Your task to perform on an android device: Open CNN.com Image 0: 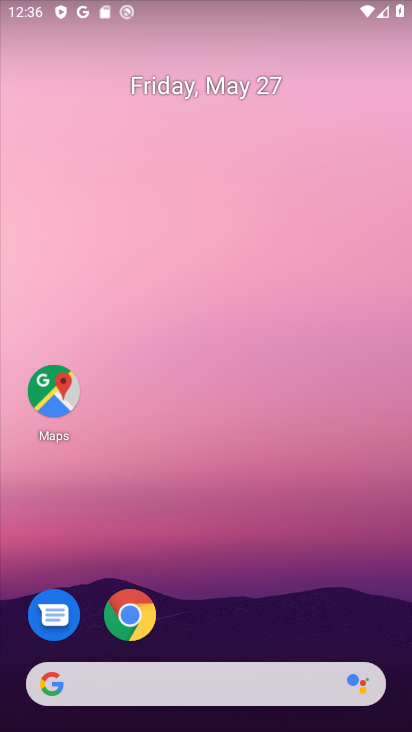
Step 0: click (194, 677)
Your task to perform on an android device: Open CNN.com Image 1: 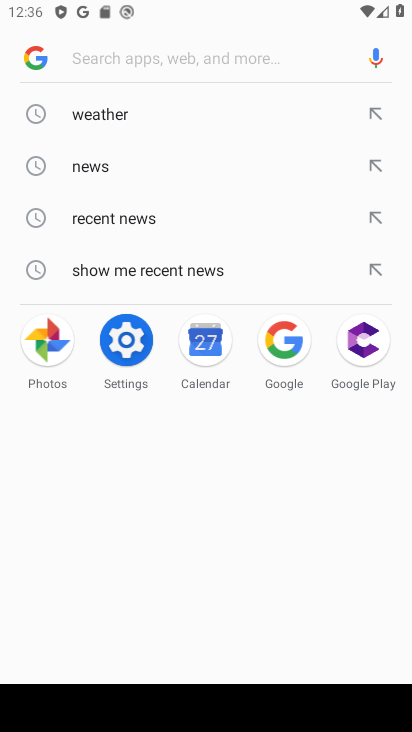
Step 1: type "Cnn.com"
Your task to perform on an android device: Open CNN.com Image 2: 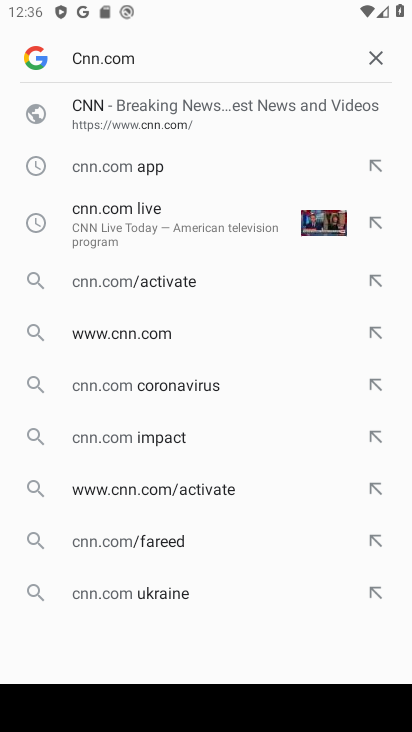
Step 2: click (250, 115)
Your task to perform on an android device: Open CNN.com Image 3: 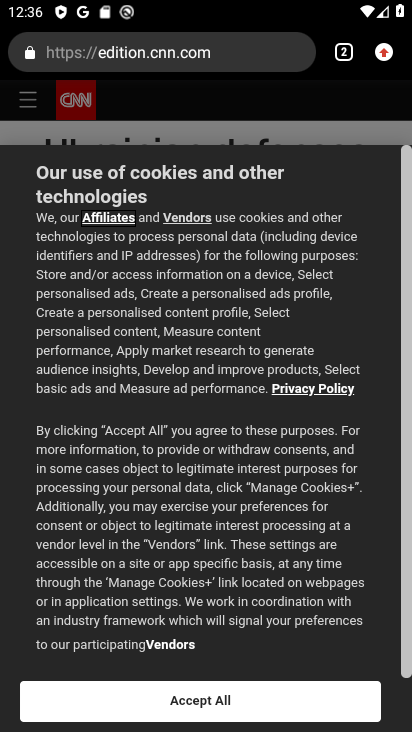
Step 3: drag from (136, 461) to (209, 299)
Your task to perform on an android device: Open CNN.com Image 4: 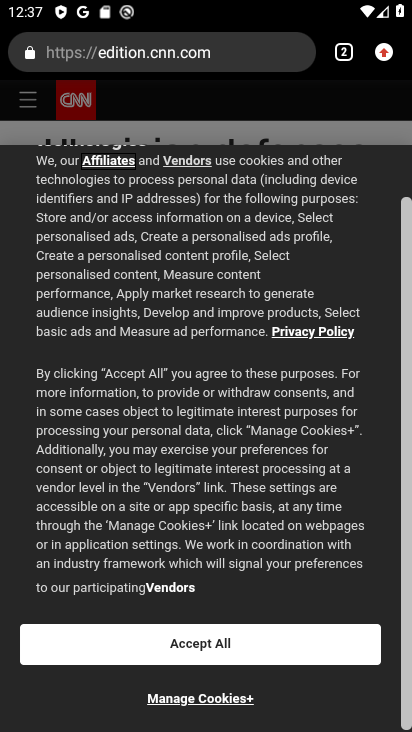
Step 4: click (165, 653)
Your task to perform on an android device: Open CNN.com Image 5: 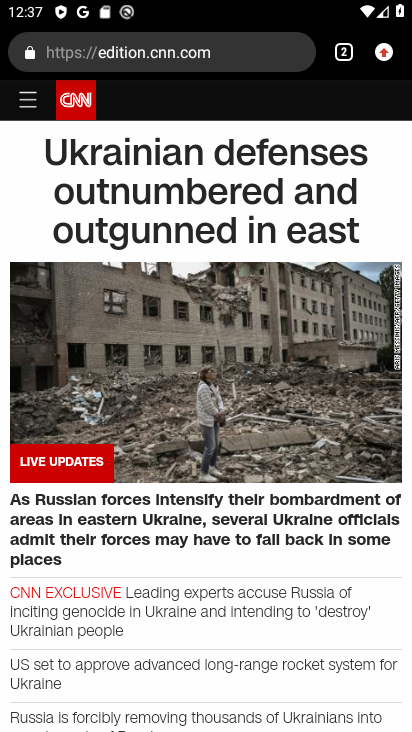
Step 5: task complete